Your task to perform on an android device: turn off notifications in google photos Image 0: 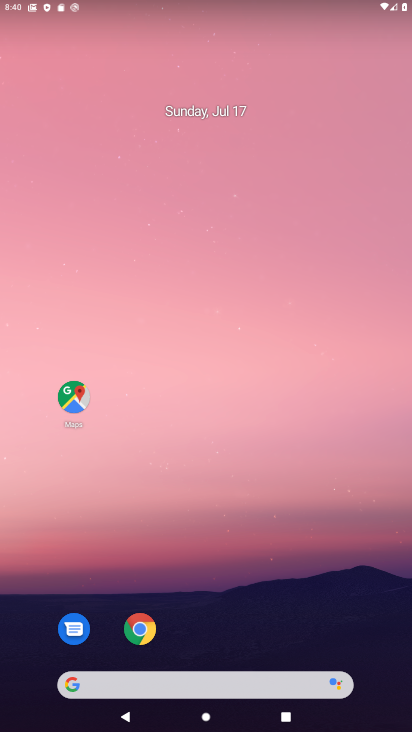
Step 0: drag from (355, 606) to (322, 24)
Your task to perform on an android device: turn off notifications in google photos Image 1: 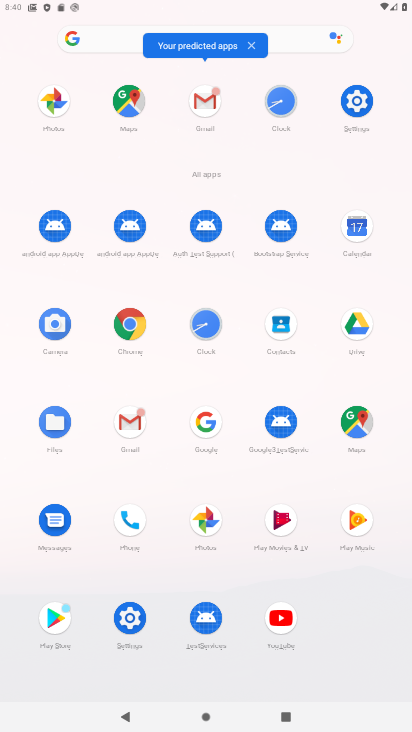
Step 1: click (209, 523)
Your task to perform on an android device: turn off notifications in google photos Image 2: 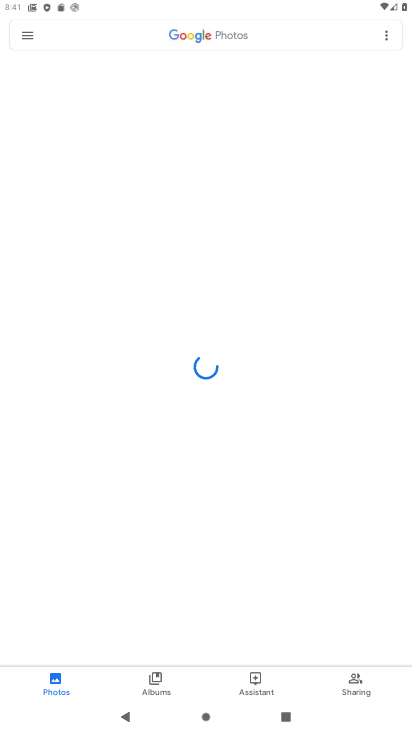
Step 2: click (27, 32)
Your task to perform on an android device: turn off notifications in google photos Image 3: 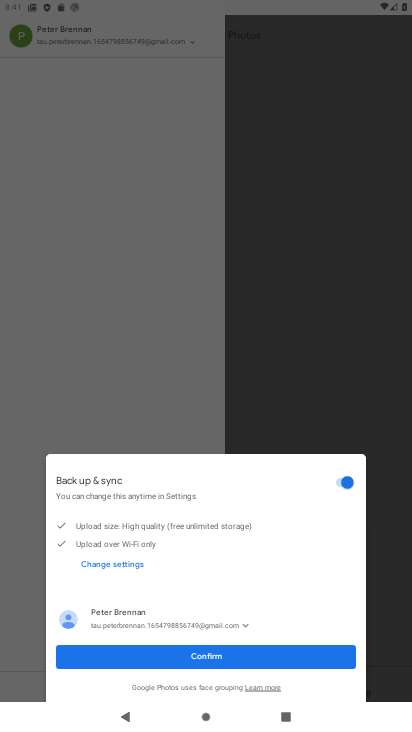
Step 3: click (208, 658)
Your task to perform on an android device: turn off notifications in google photos Image 4: 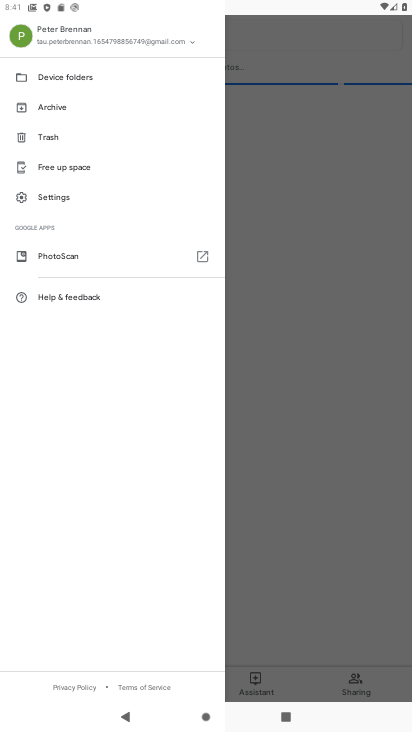
Step 4: click (59, 192)
Your task to perform on an android device: turn off notifications in google photos Image 5: 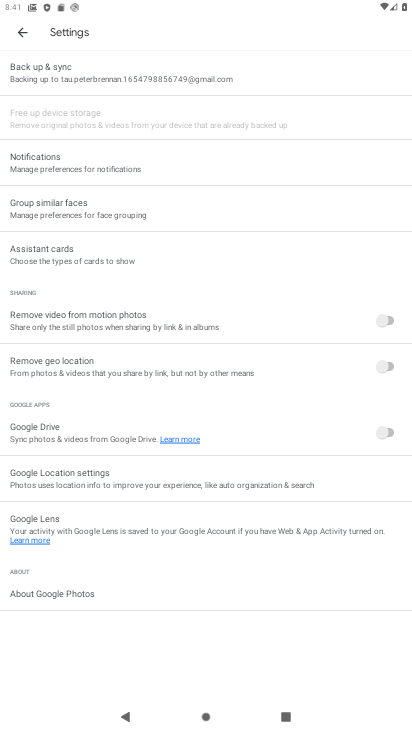
Step 5: click (59, 122)
Your task to perform on an android device: turn off notifications in google photos Image 6: 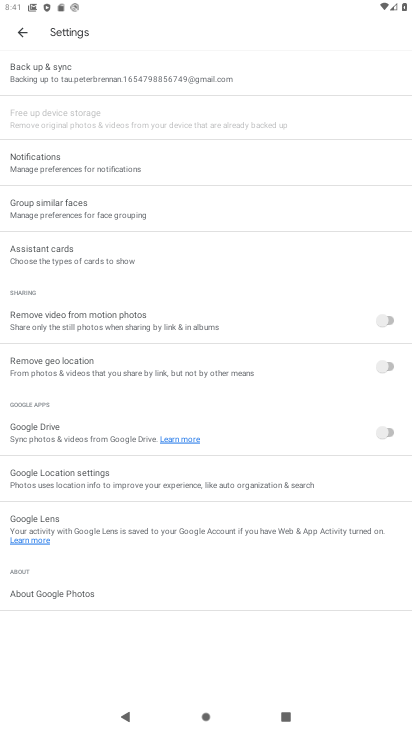
Step 6: click (49, 161)
Your task to perform on an android device: turn off notifications in google photos Image 7: 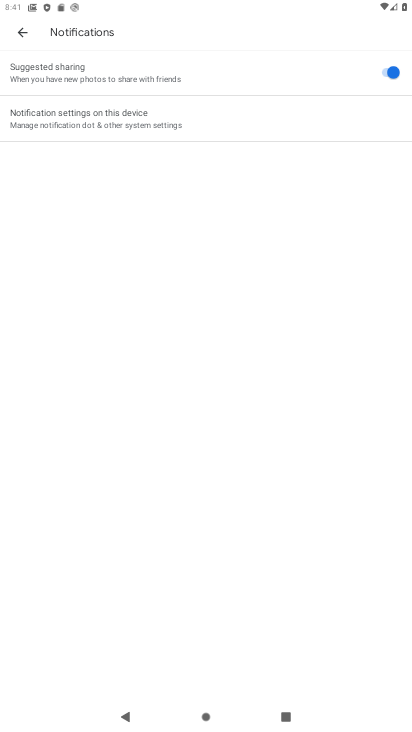
Step 7: click (93, 114)
Your task to perform on an android device: turn off notifications in google photos Image 8: 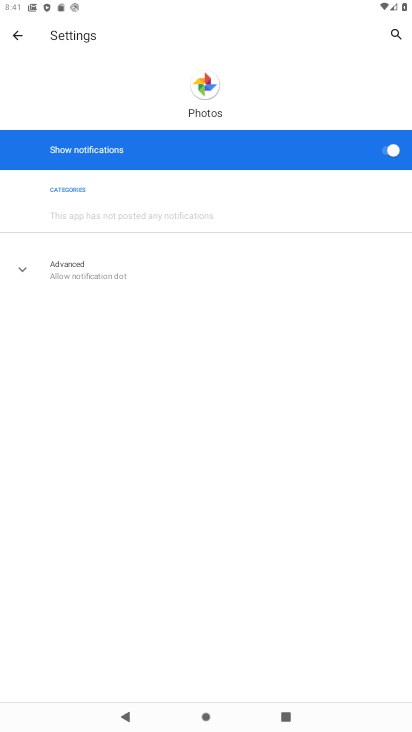
Step 8: click (387, 149)
Your task to perform on an android device: turn off notifications in google photos Image 9: 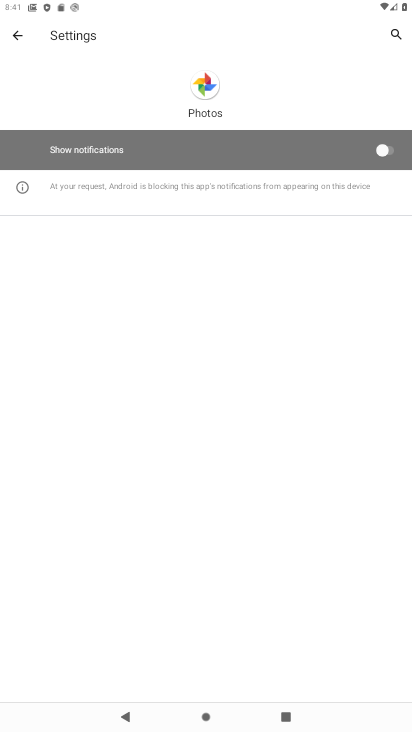
Step 9: task complete